Your task to perform on an android device: Open the calendar and show me this week's events Image 0: 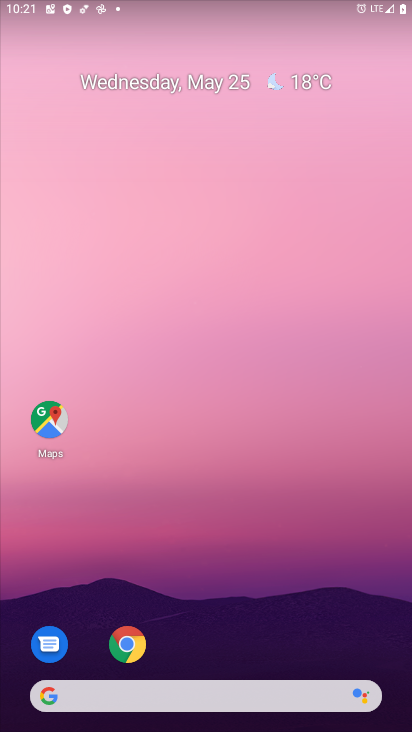
Step 0: drag from (206, 651) to (160, 19)
Your task to perform on an android device: Open the calendar and show me this week's events Image 1: 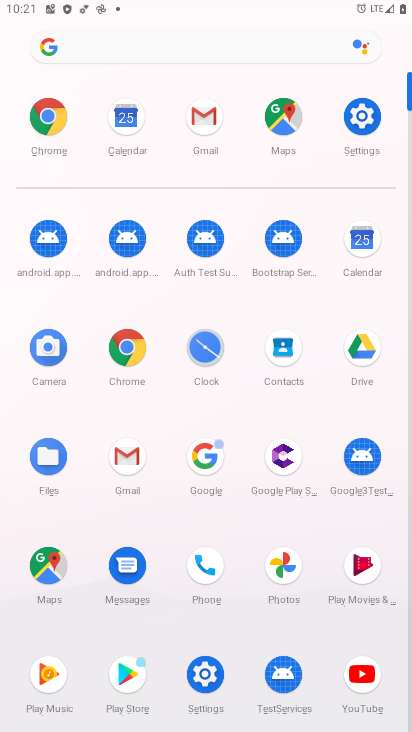
Step 1: click (359, 236)
Your task to perform on an android device: Open the calendar and show me this week's events Image 2: 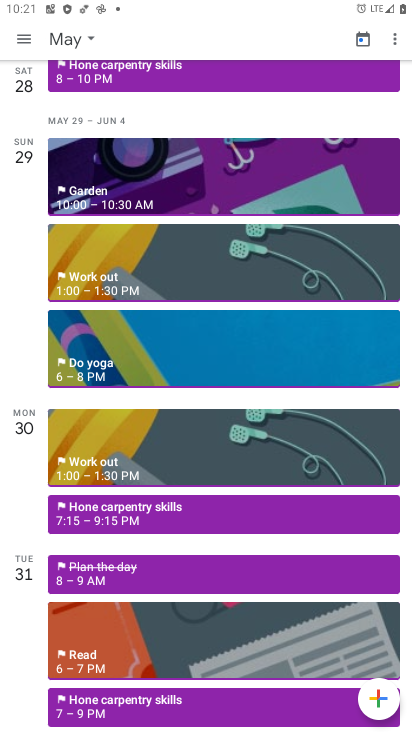
Step 2: drag from (32, 634) to (26, 358)
Your task to perform on an android device: Open the calendar and show me this week's events Image 3: 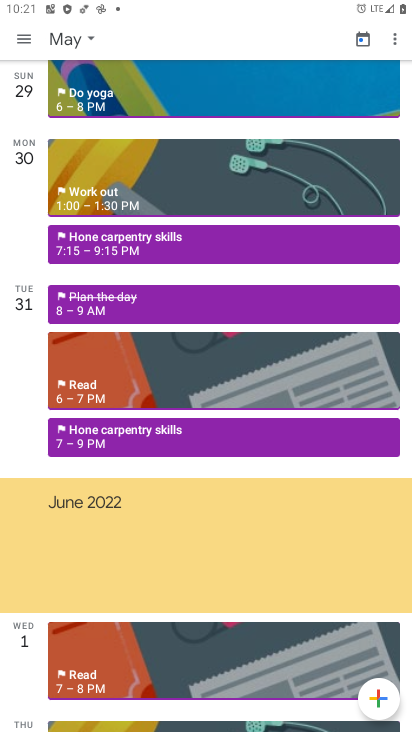
Step 3: click (92, 34)
Your task to perform on an android device: Open the calendar and show me this week's events Image 4: 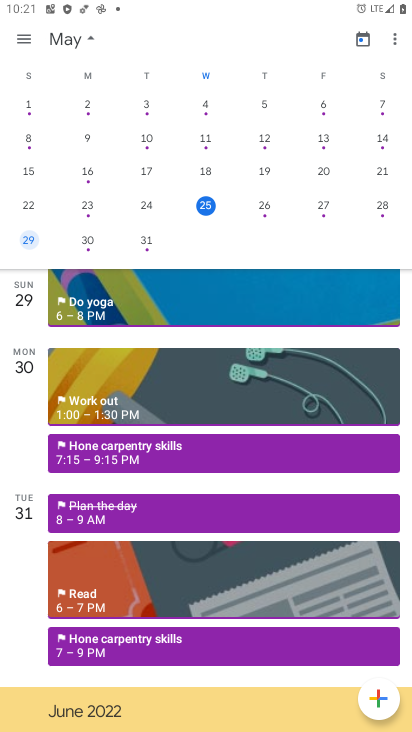
Step 4: click (206, 200)
Your task to perform on an android device: Open the calendar and show me this week's events Image 5: 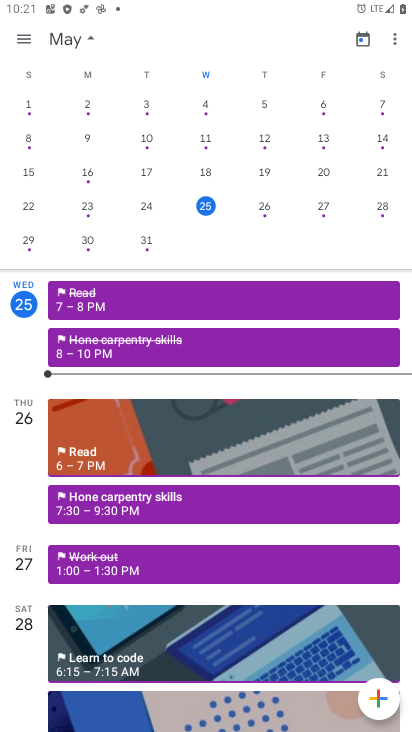
Step 5: click (89, 35)
Your task to perform on an android device: Open the calendar and show me this week's events Image 6: 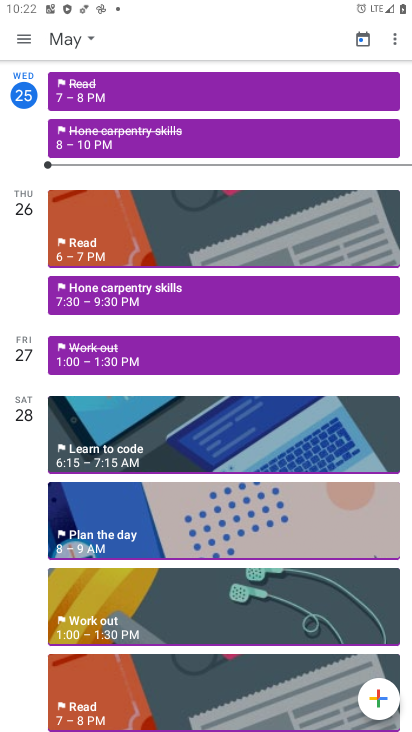
Step 6: task complete